Your task to perform on an android device: What's on my calendar tomorrow? Image 0: 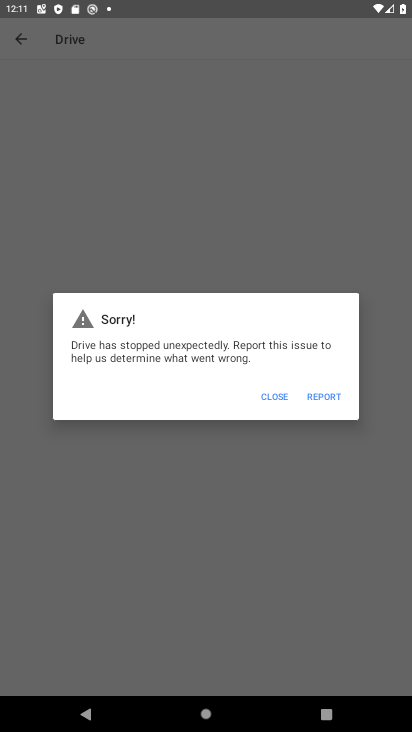
Step 0: press home button
Your task to perform on an android device: What's on my calendar tomorrow? Image 1: 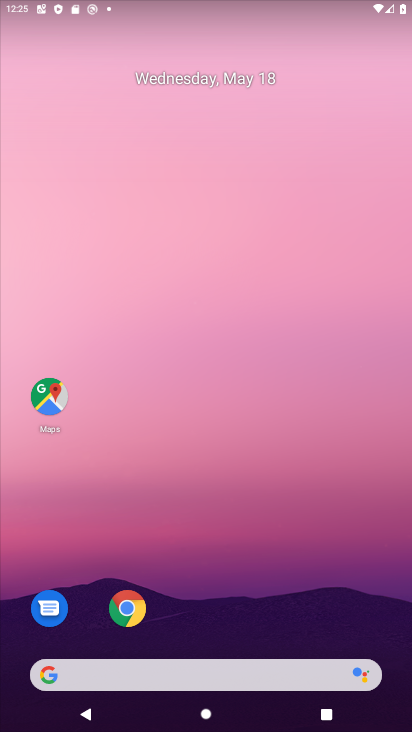
Step 1: drag from (273, 712) to (358, 79)
Your task to perform on an android device: What's on my calendar tomorrow? Image 2: 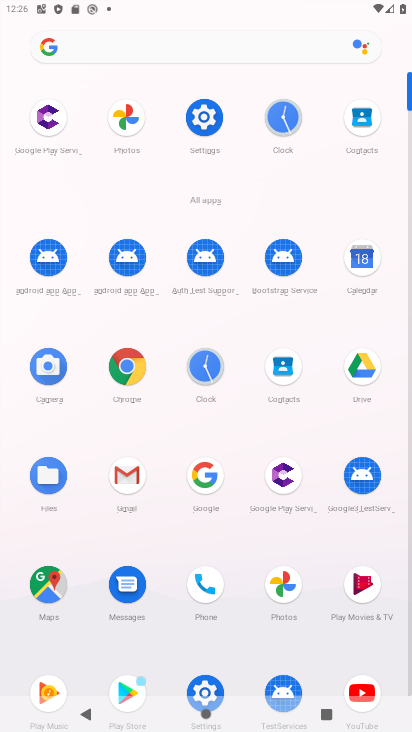
Step 2: click (361, 261)
Your task to perform on an android device: What's on my calendar tomorrow? Image 3: 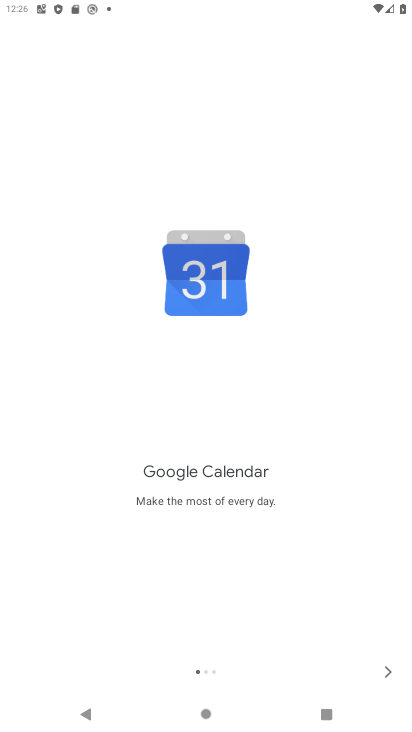
Step 3: drag from (352, 431) to (13, 532)
Your task to perform on an android device: What's on my calendar tomorrow? Image 4: 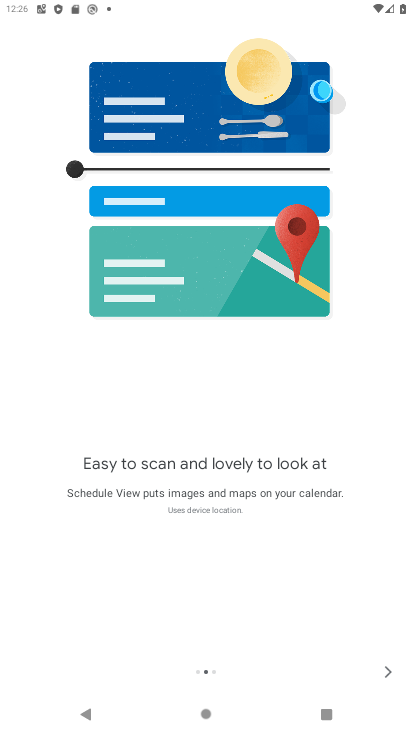
Step 4: click (26, 580)
Your task to perform on an android device: What's on my calendar tomorrow? Image 5: 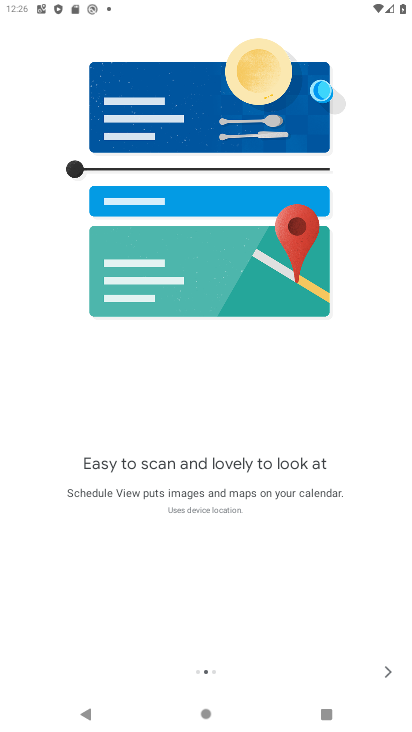
Step 5: drag from (340, 512) to (8, 547)
Your task to perform on an android device: What's on my calendar tomorrow? Image 6: 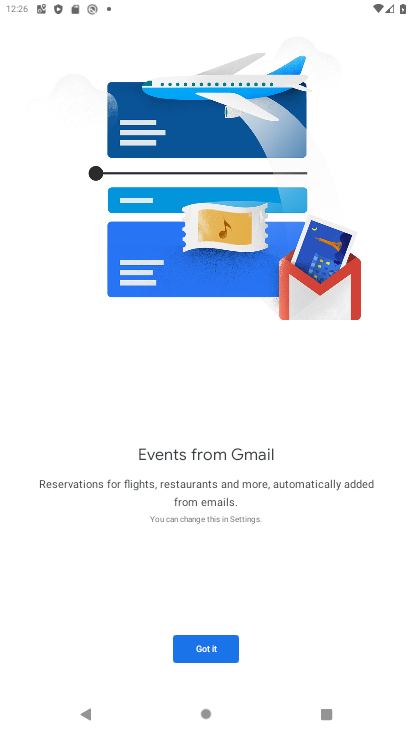
Step 6: click (194, 653)
Your task to perform on an android device: What's on my calendar tomorrow? Image 7: 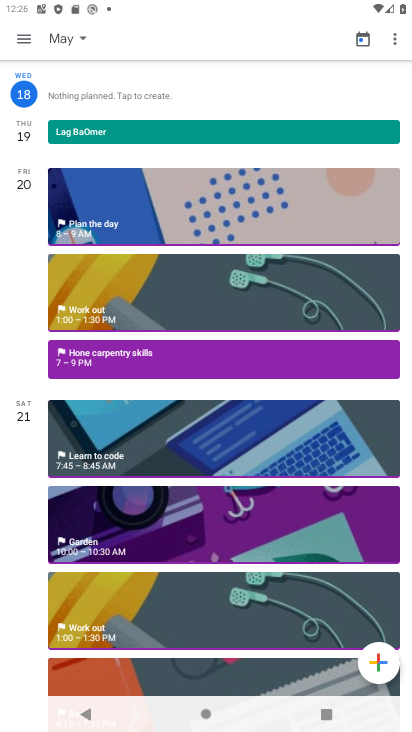
Step 7: task complete